Your task to perform on an android device: Open network settings Image 0: 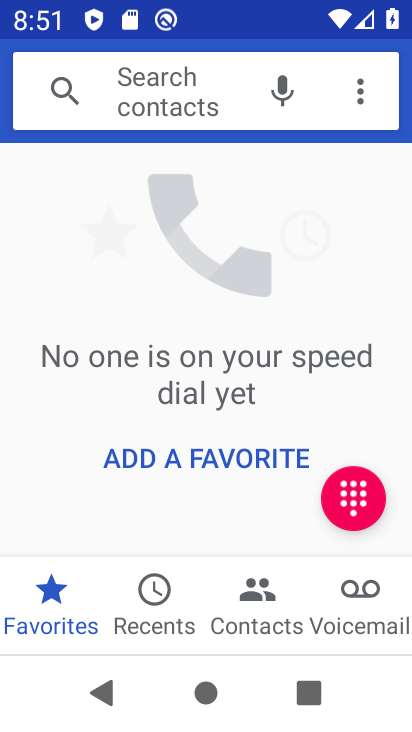
Step 0: press home button
Your task to perform on an android device: Open network settings Image 1: 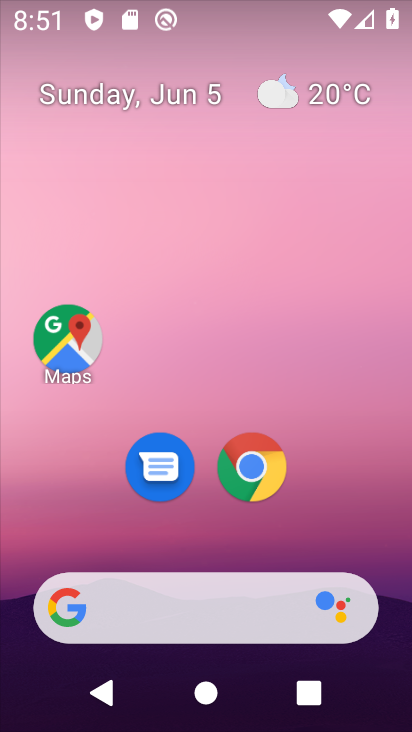
Step 1: drag from (302, 548) to (337, 32)
Your task to perform on an android device: Open network settings Image 2: 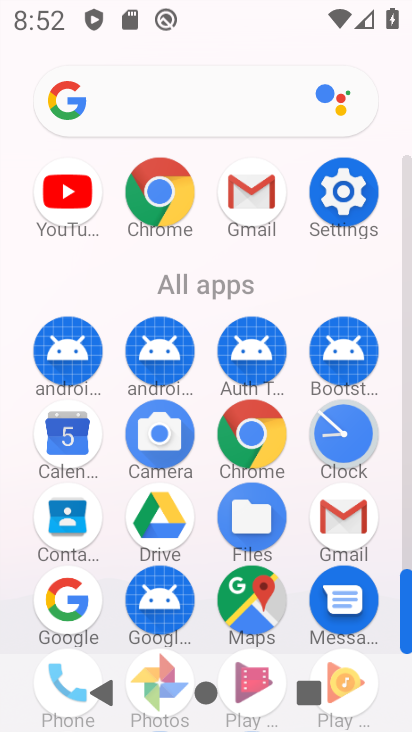
Step 2: click (346, 187)
Your task to perform on an android device: Open network settings Image 3: 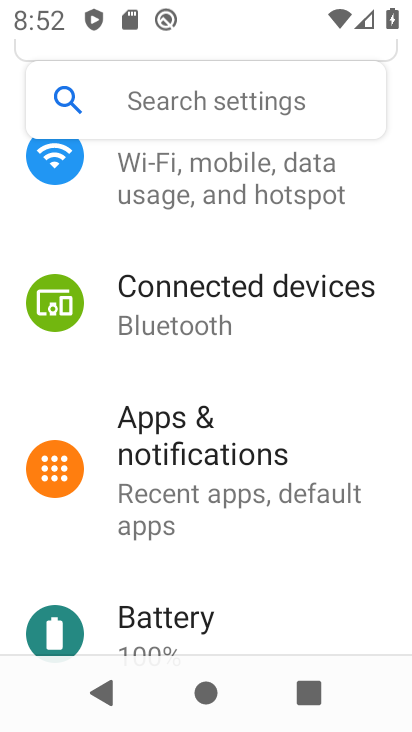
Step 3: drag from (255, 244) to (318, 523)
Your task to perform on an android device: Open network settings Image 4: 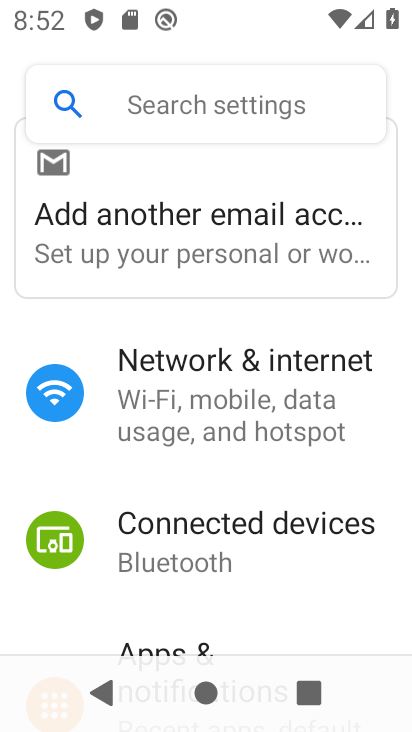
Step 4: click (197, 401)
Your task to perform on an android device: Open network settings Image 5: 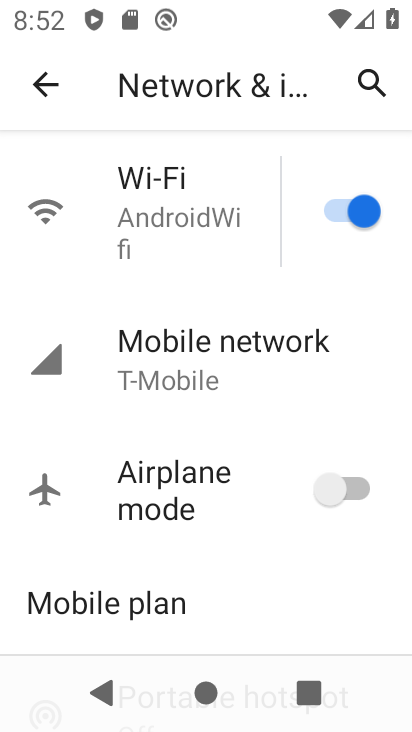
Step 5: click (174, 349)
Your task to perform on an android device: Open network settings Image 6: 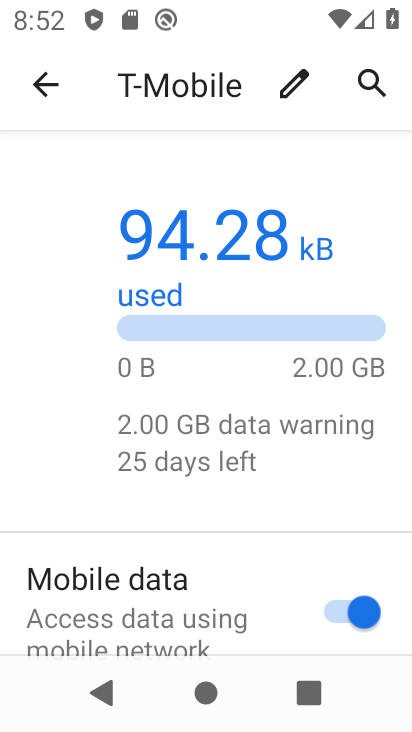
Step 6: task complete